Your task to perform on an android device: set the timer Image 0: 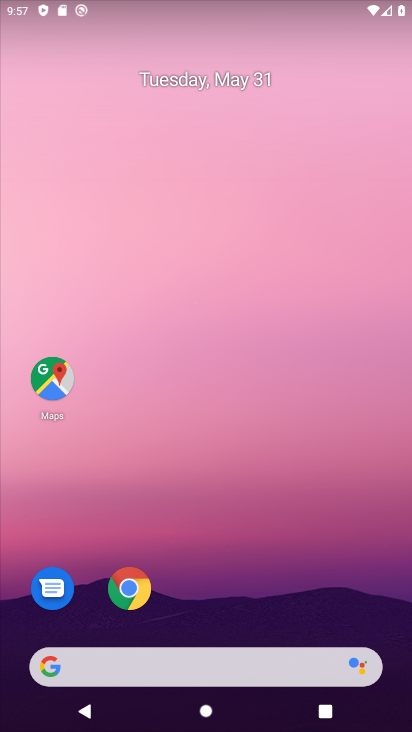
Step 0: drag from (240, 557) to (246, 50)
Your task to perform on an android device: set the timer Image 1: 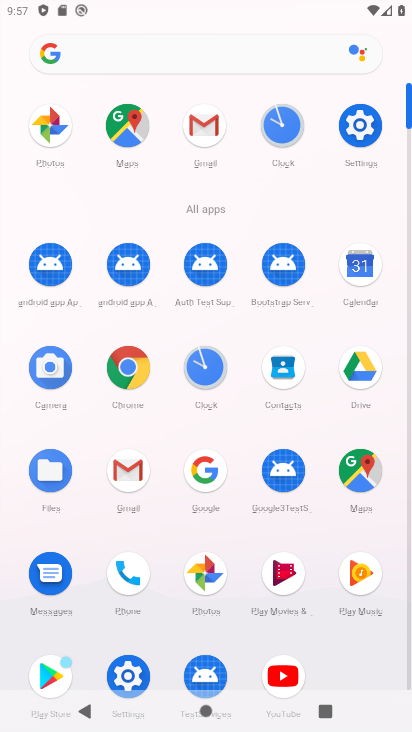
Step 1: click (284, 129)
Your task to perform on an android device: set the timer Image 2: 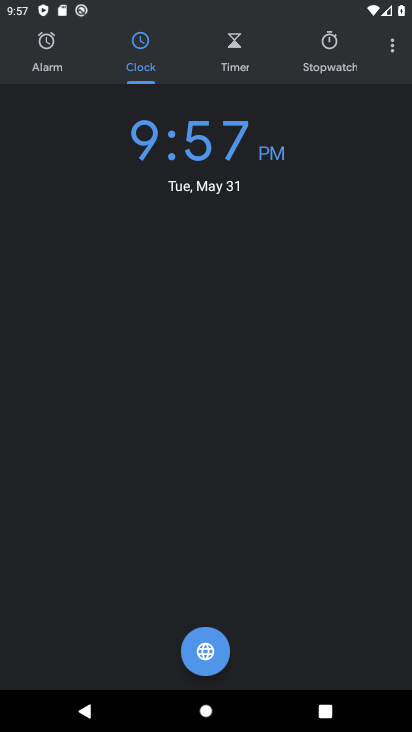
Step 2: click (236, 45)
Your task to perform on an android device: set the timer Image 3: 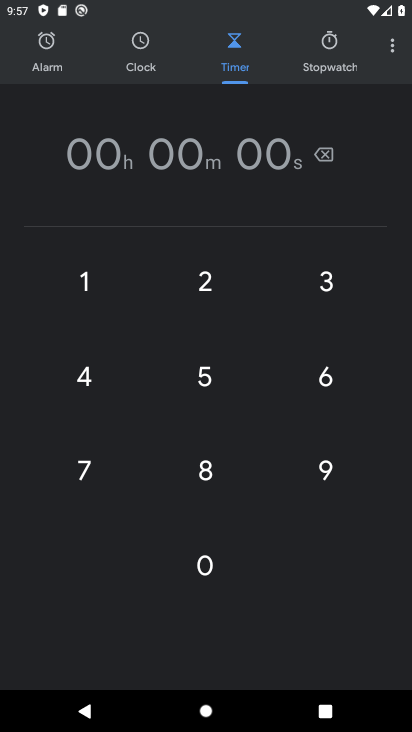
Step 3: type "1357"
Your task to perform on an android device: set the timer Image 4: 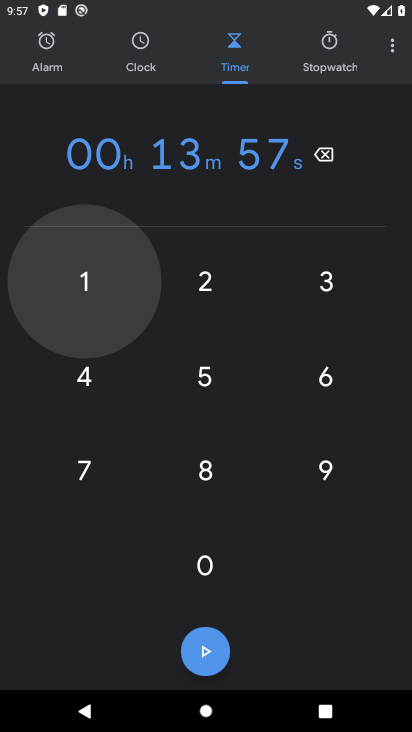
Step 4: click (207, 650)
Your task to perform on an android device: set the timer Image 5: 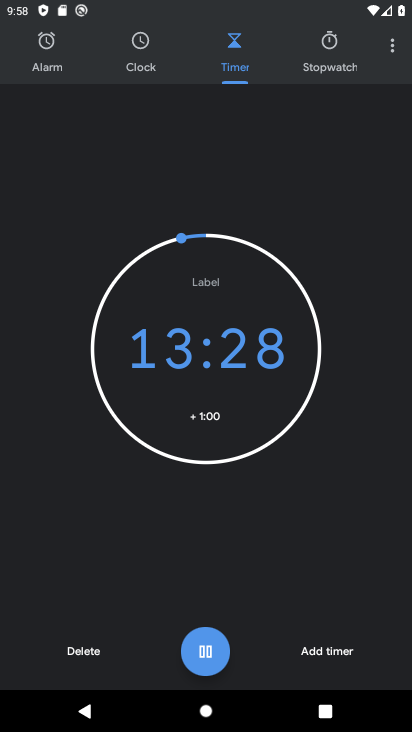
Step 5: click (198, 656)
Your task to perform on an android device: set the timer Image 6: 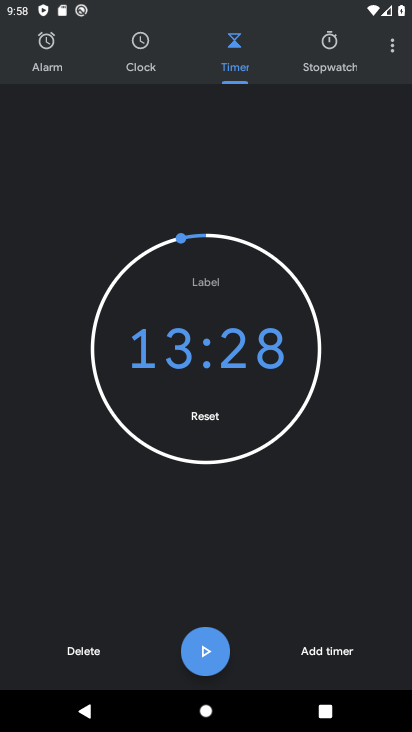
Step 6: task complete